Your task to perform on an android device: create a new album in the google photos Image 0: 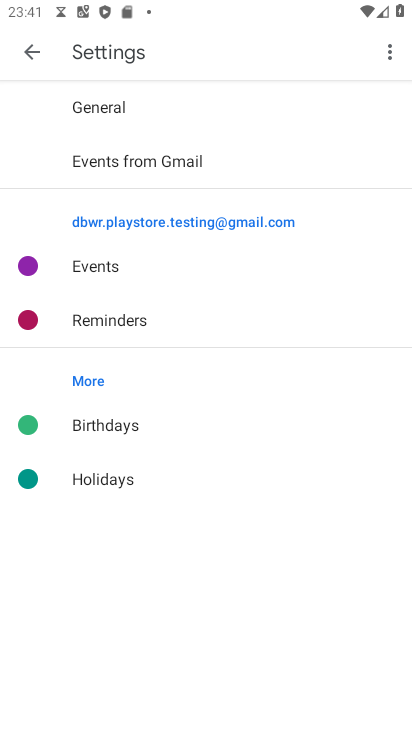
Step 0: press back button
Your task to perform on an android device: create a new album in the google photos Image 1: 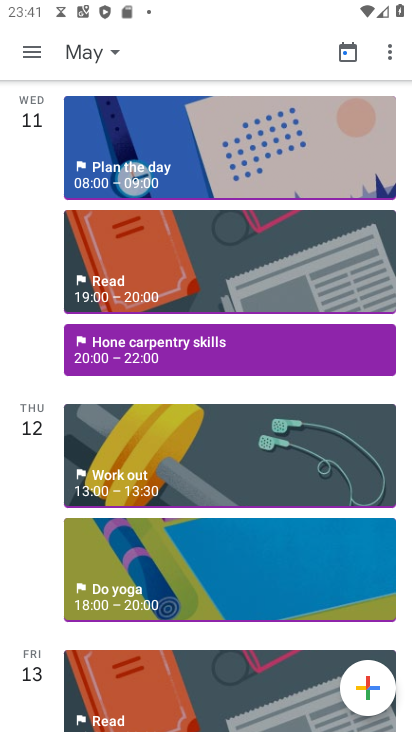
Step 1: press back button
Your task to perform on an android device: create a new album in the google photos Image 2: 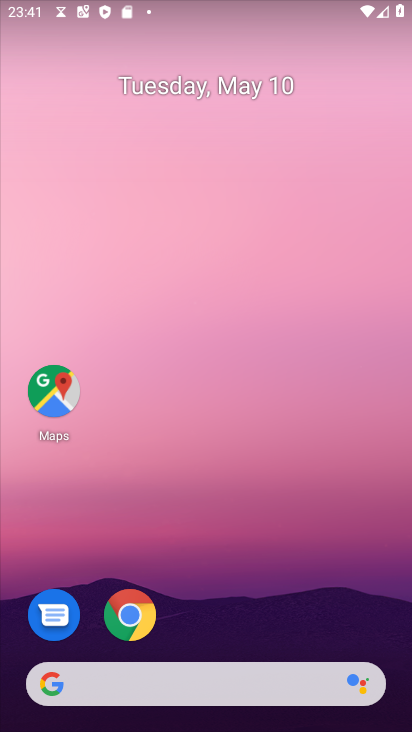
Step 2: drag from (230, 572) to (204, 207)
Your task to perform on an android device: create a new album in the google photos Image 3: 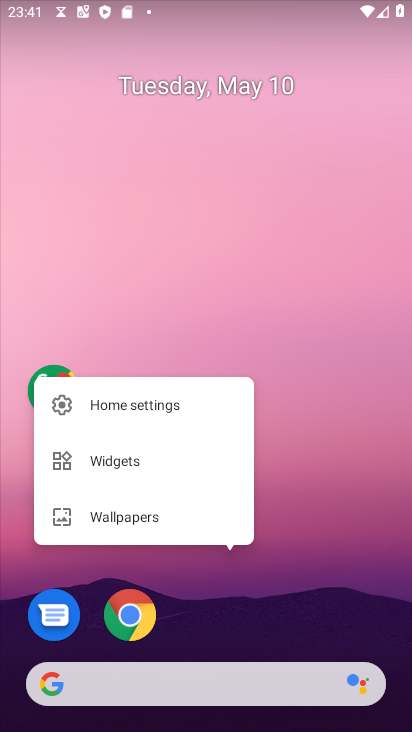
Step 3: drag from (311, 583) to (279, 99)
Your task to perform on an android device: create a new album in the google photos Image 4: 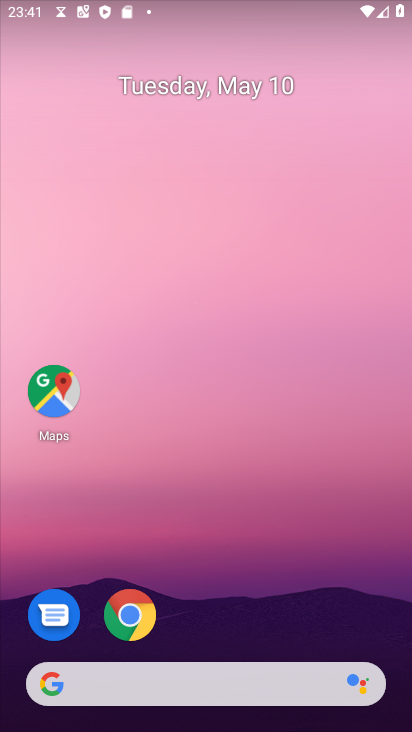
Step 4: drag from (227, 599) to (215, 67)
Your task to perform on an android device: create a new album in the google photos Image 5: 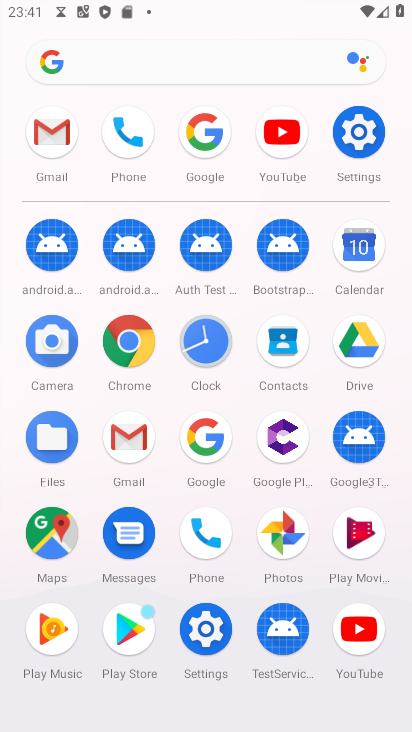
Step 5: click (283, 533)
Your task to perform on an android device: create a new album in the google photos Image 6: 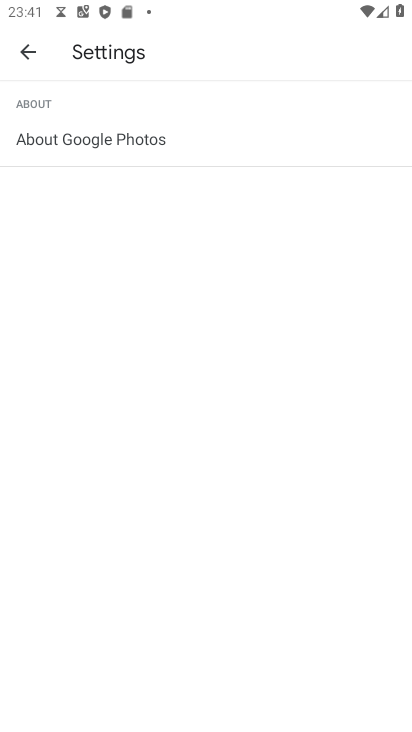
Step 6: press back button
Your task to perform on an android device: create a new album in the google photos Image 7: 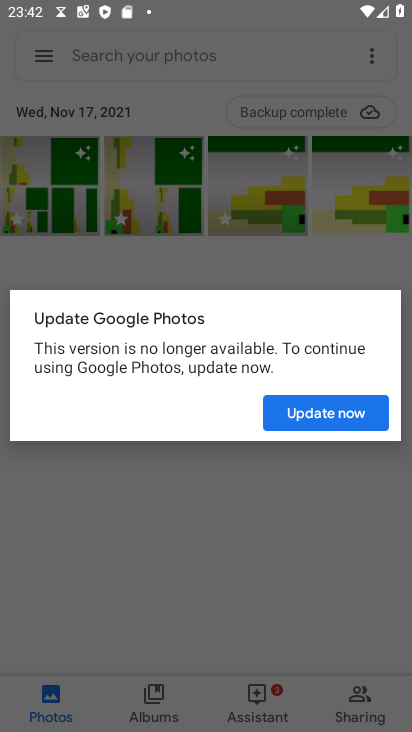
Step 7: click (327, 429)
Your task to perform on an android device: create a new album in the google photos Image 8: 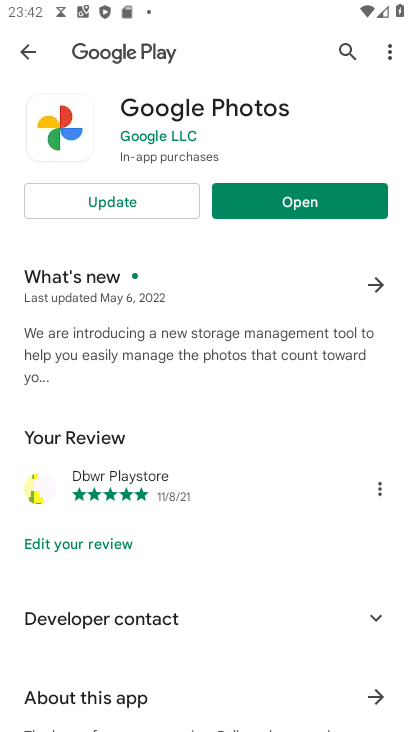
Step 8: click (112, 199)
Your task to perform on an android device: create a new album in the google photos Image 9: 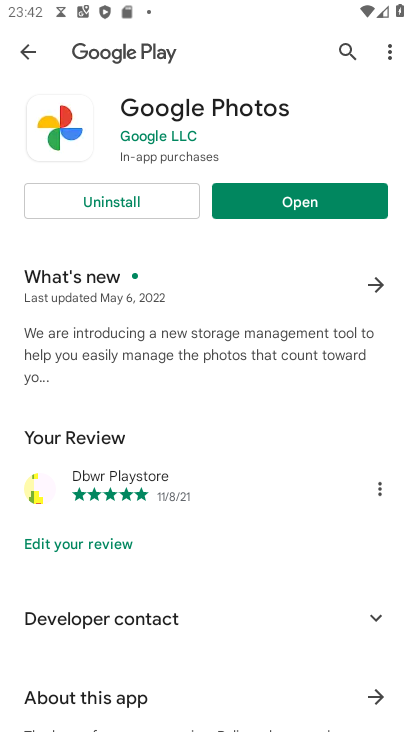
Step 9: click (313, 204)
Your task to perform on an android device: create a new album in the google photos Image 10: 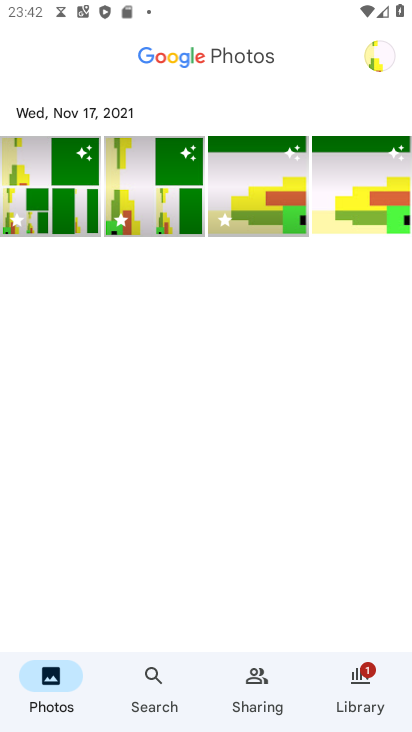
Step 10: click (365, 679)
Your task to perform on an android device: create a new album in the google photos Image 11: 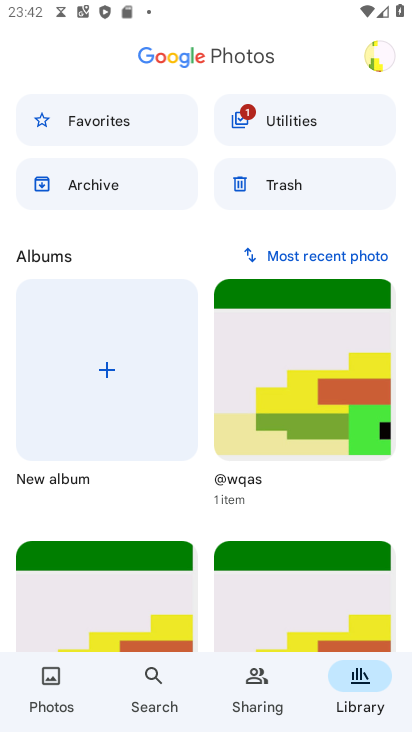
Step 11: click (108, 364)
Your task to perform on an android device: create a new album in the google photos Image 12: 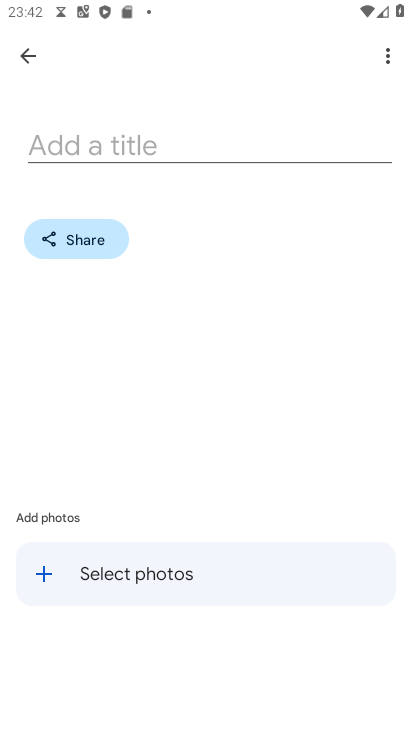
Step 12: click (179, 162)
Your task to perform on an android device: create a new album in the google photos Image 13: 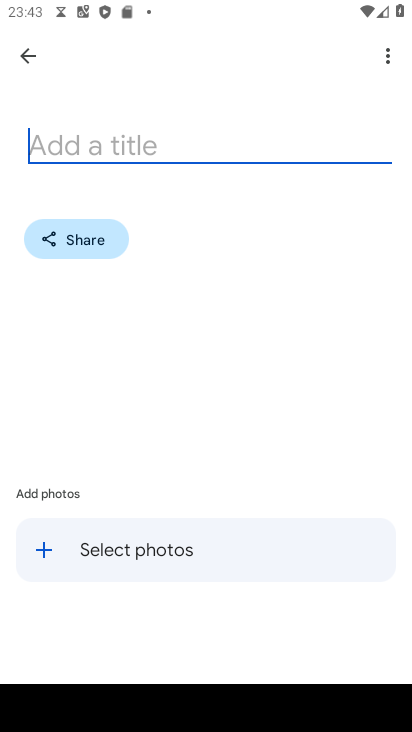
Step 13: type "Soundarya"
Your task to perform on an android device: create a new album in the google photos Image 14: 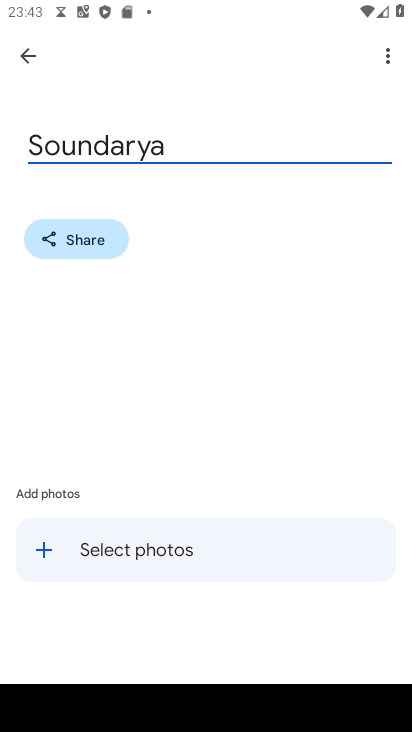
Step 14: click (147, 545)
Your task to perform on an android device: create a new album in the google photos Image 15: 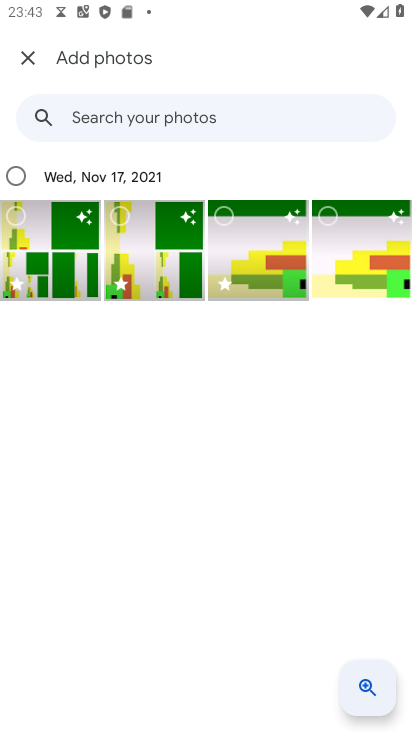
Step 15: click (12, 166)
Your task to perform on an android device: create a new album in the google photos Image 16: 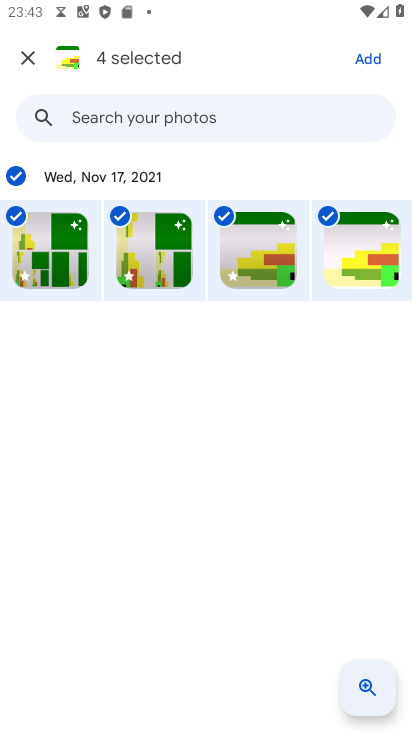
Step 16: click (367, 57)
Your task to perform on an android device: create a new album in the google photos Image 17: 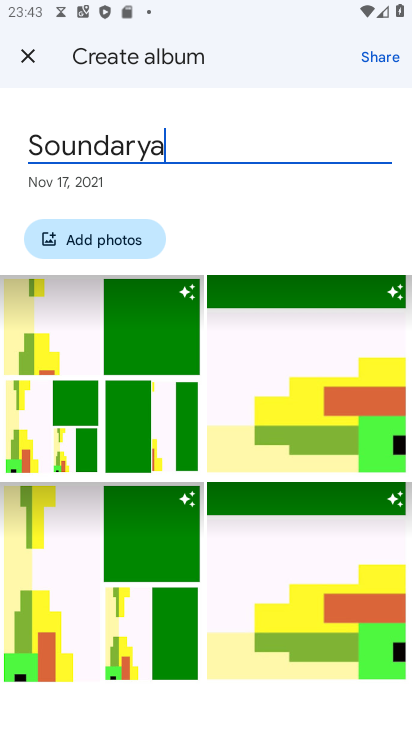
Step 17: task complete